Your task to perform on an android device: check out phone information Image 0: 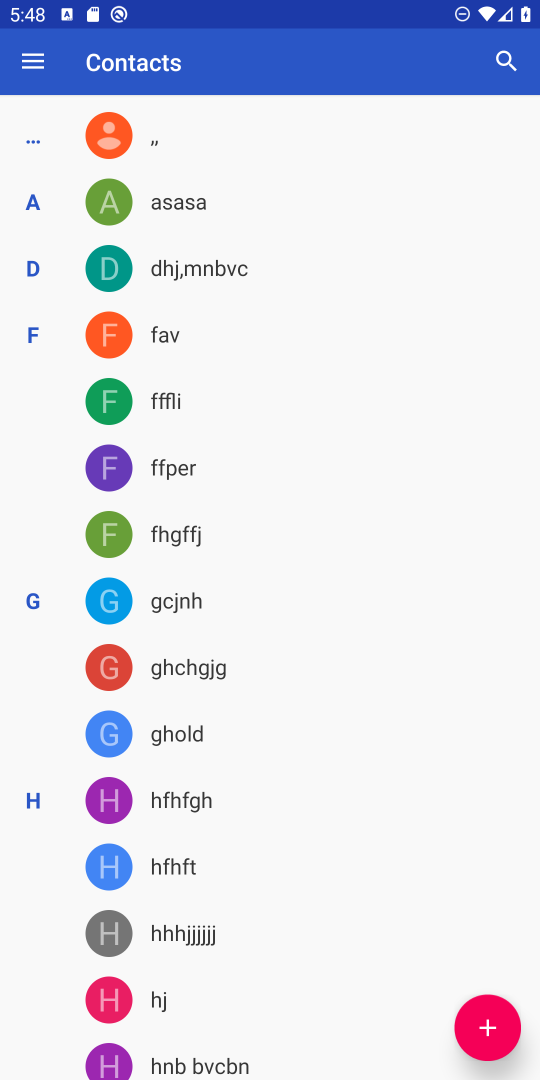
Step 0: press home button
Your task to perform on an android device: check out phone information Image 1: 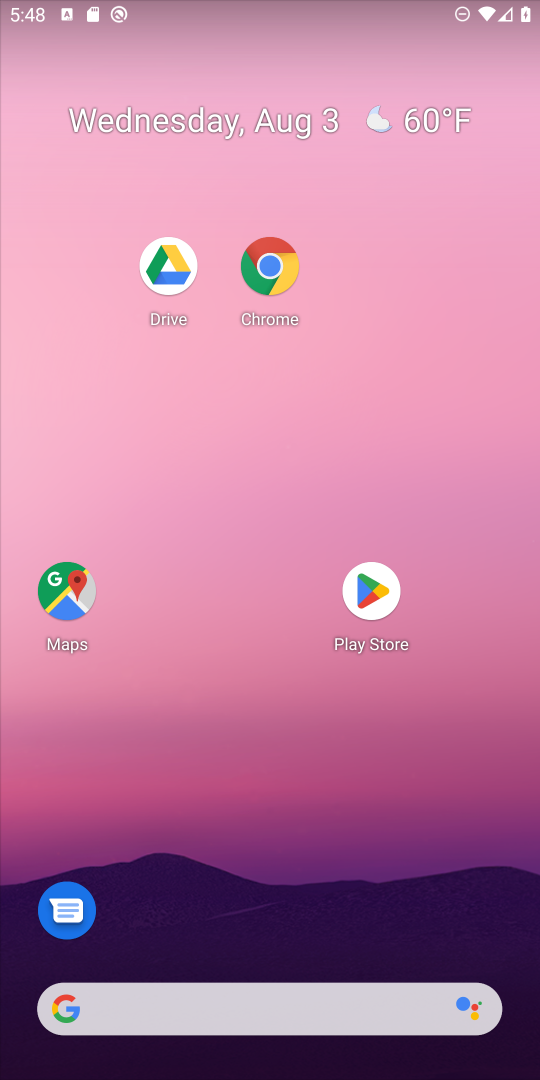
Step 1: drag from (350, 994) to (440, 3)
Your task to perform on an android device: check out phone information Image 2: 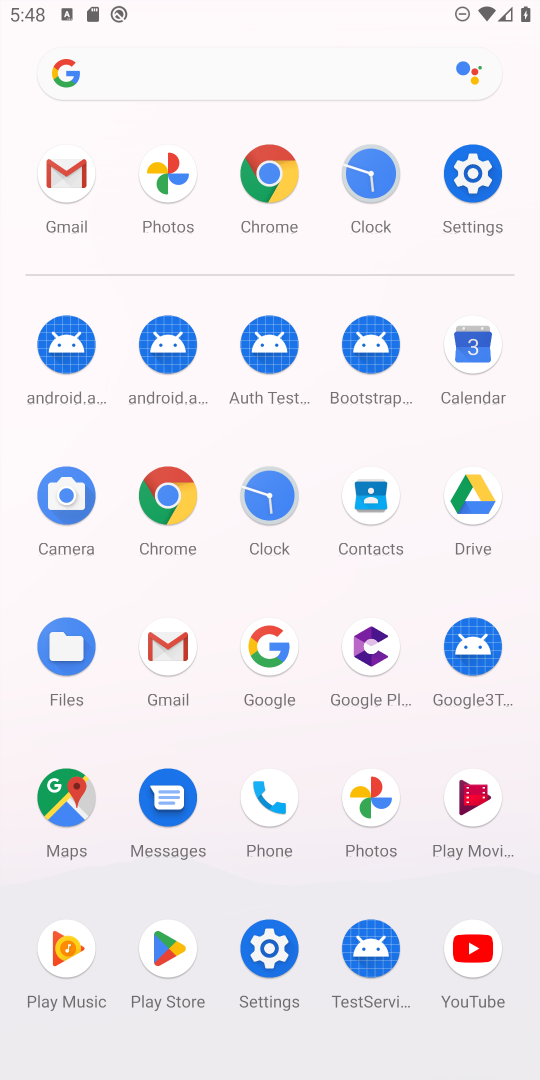
Step 2: click (469, 155)
Your task to perform on an android device: check out phone information Image 3: 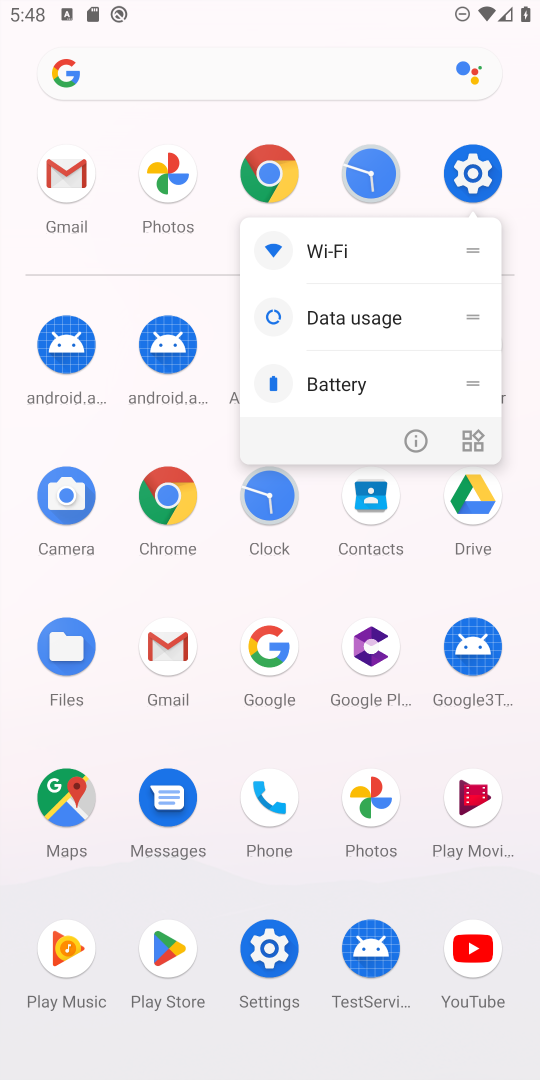
Step 3: click (468, 157)
Your task to perform on an android device: check out phone information Image 4: 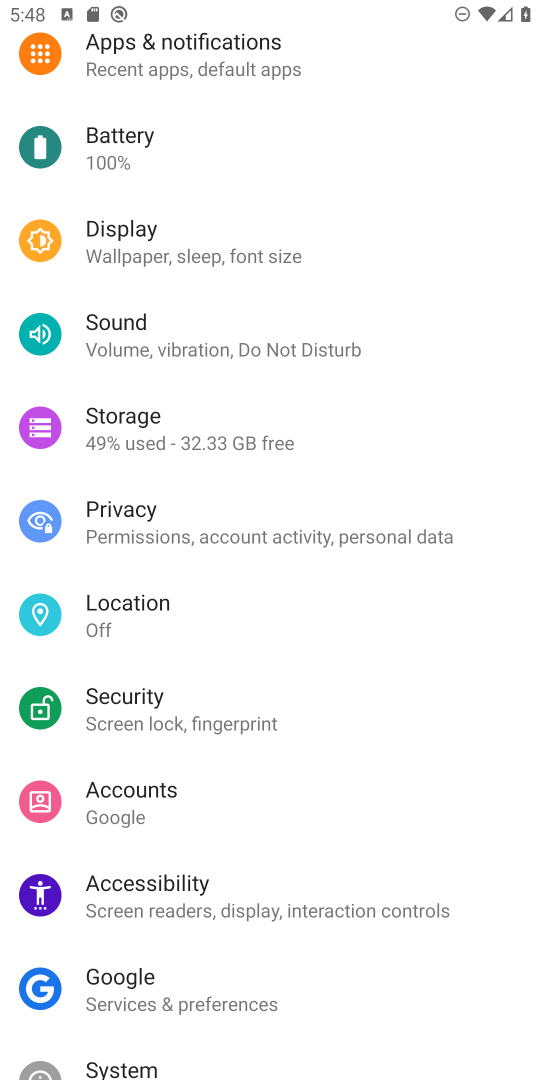
Step 4: drag from (292, 987) to (377, 13)
Your task to perform on an android device: check out phone information Image 5: 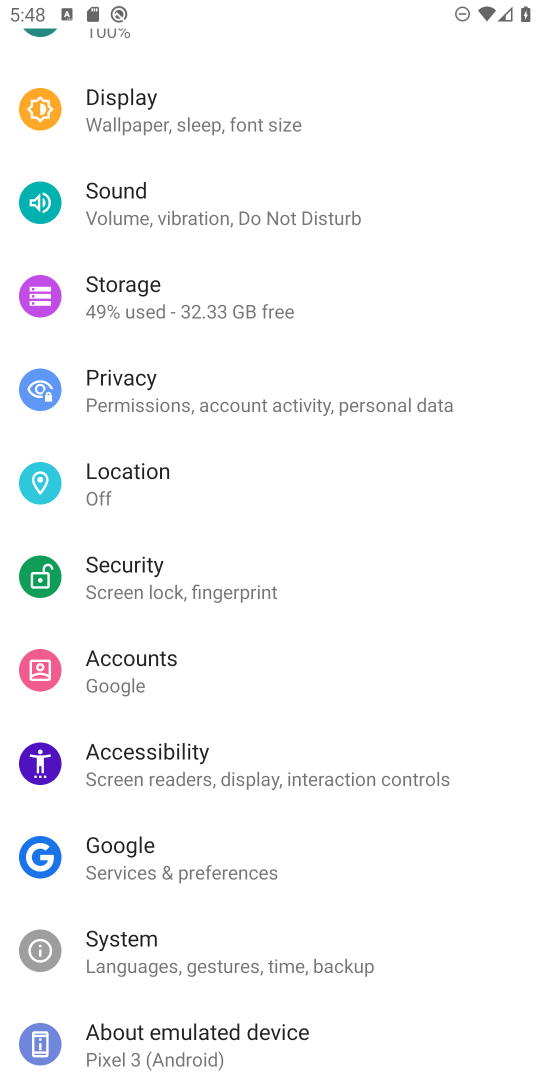
Step 5: click (276, 1037)
Your task to perform on an android device: check out phone information Image 6: 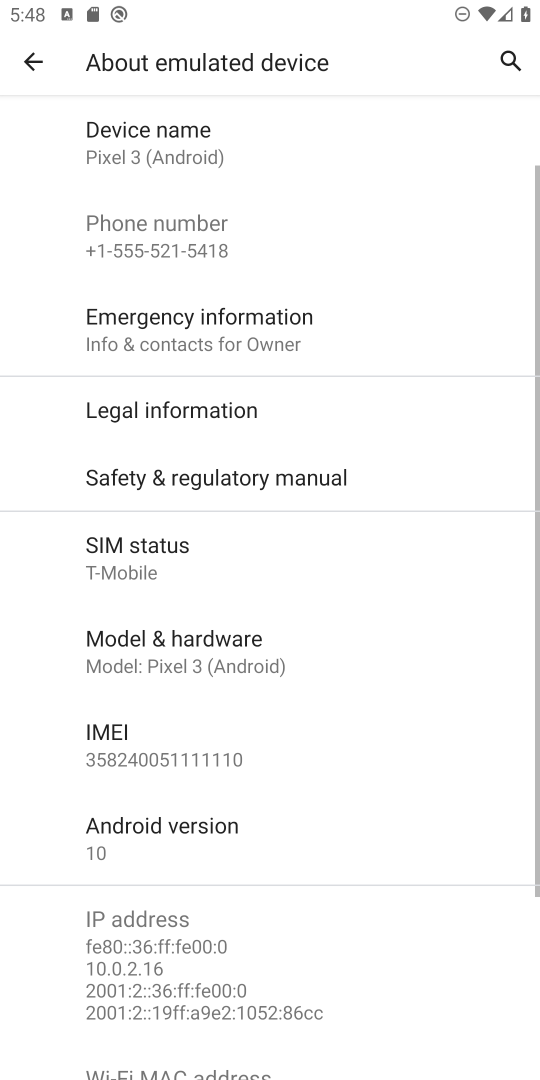
Step 6: task complete